Your task to perform on an android device: Open Google Maps and go to "Timeline" Image 0: 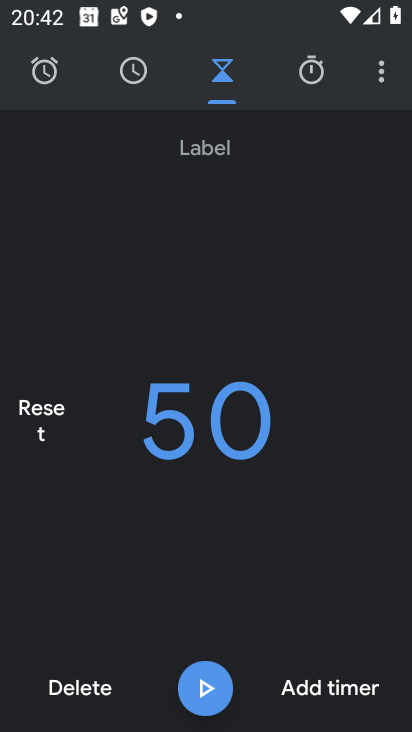
Step 0: press home button
Your task to perform on an android device: Open Google Maps and go to "Timeline" Image 1: 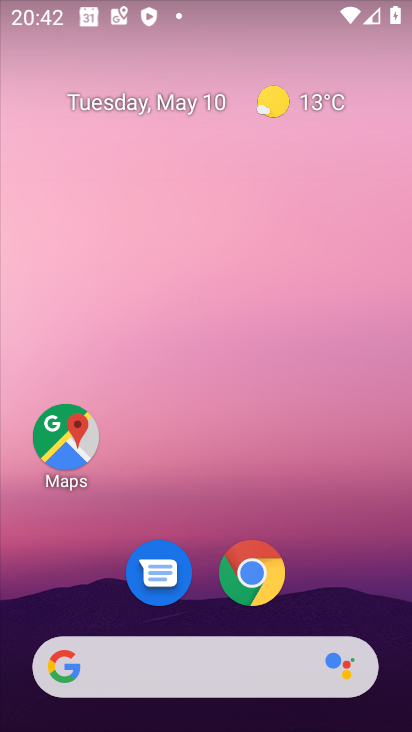
Step 1: click (64, 434)
Your task to perform on an android device: Open Google Maps and go to "Timeline" Image 2: 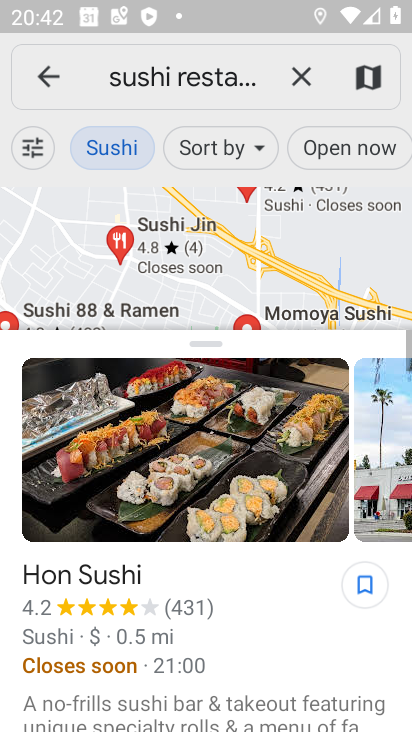
Step 2: click (290, 81)
Your task to perform on an android device: Open Google Maps and go to "Timeline" Image 3: 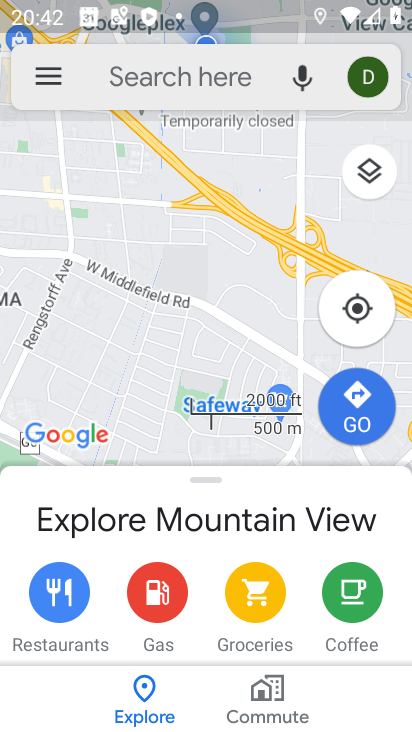
Step 3: click (42, 83)
Your task to perform on an android device: Open Google Maps and go to "Timeline" Image 4: 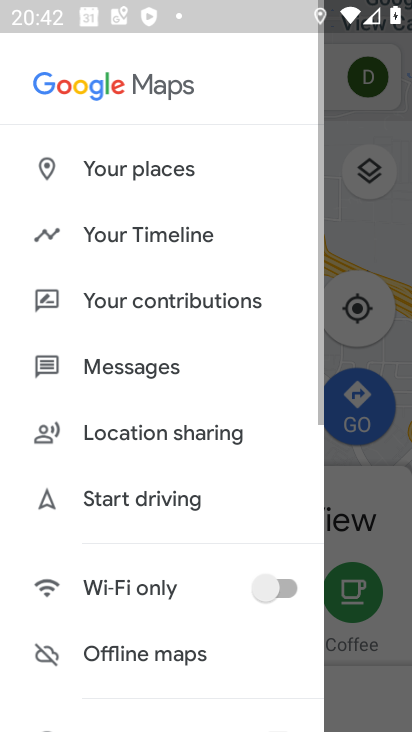
Step 4: click (86, 239)
Your task to perform on an android device: Open Google Maps and go to "Timeline" Image 5: 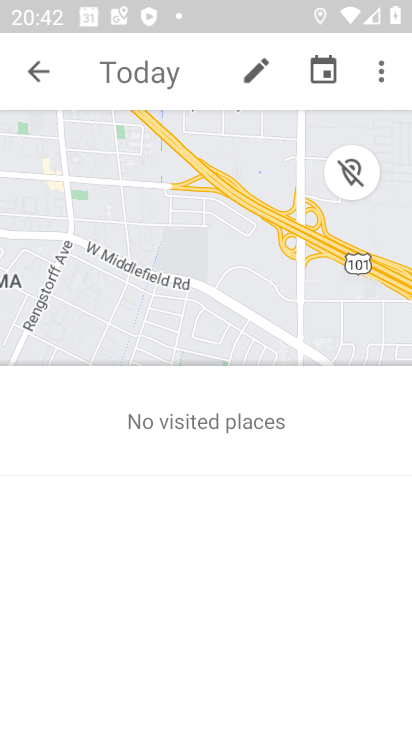
Step 5: task complete